Your task to perform on an android device: Toggle the flashlight Image 0: 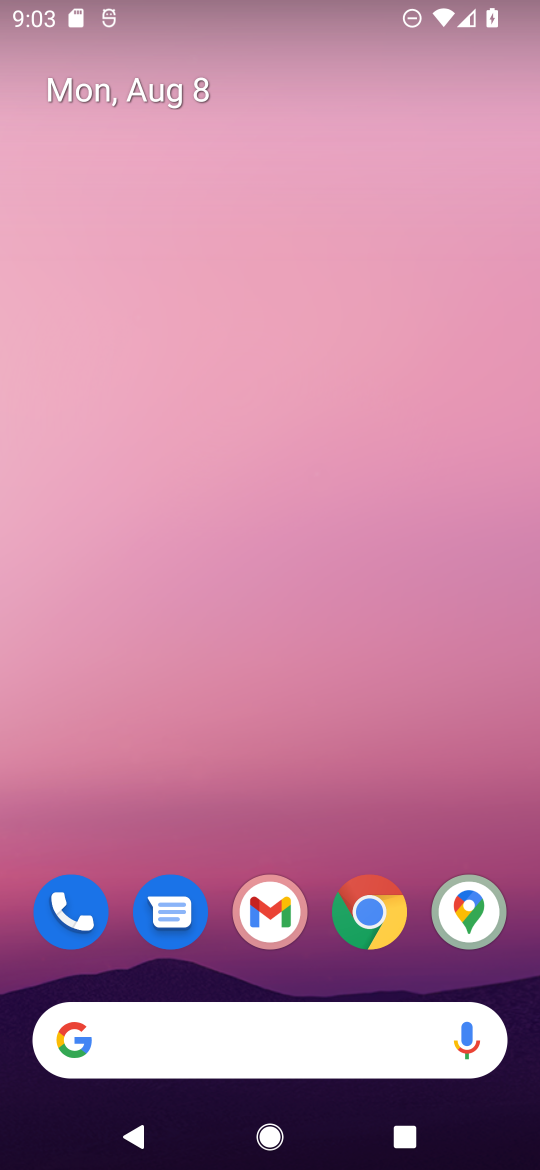
Step 0: drag from (437, 981) to (236, 59)
Your task to perform on an android device: Toggle the flashlight Image 1: 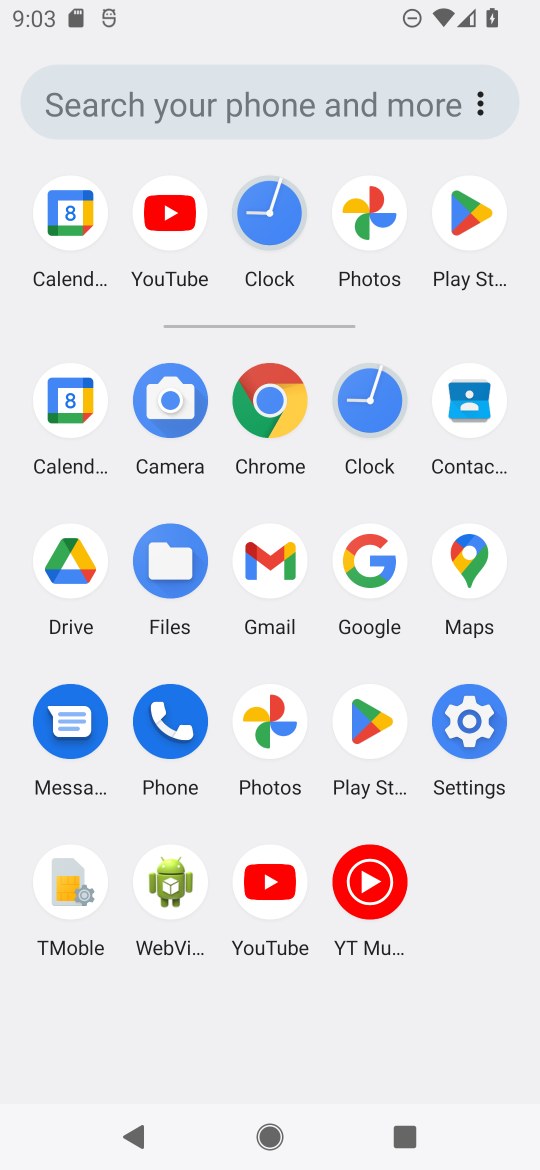
Step 1: drag from (273, 13) to (436, 1165)
Your task to perform on an android device: Toggle the flashlight Image 2: 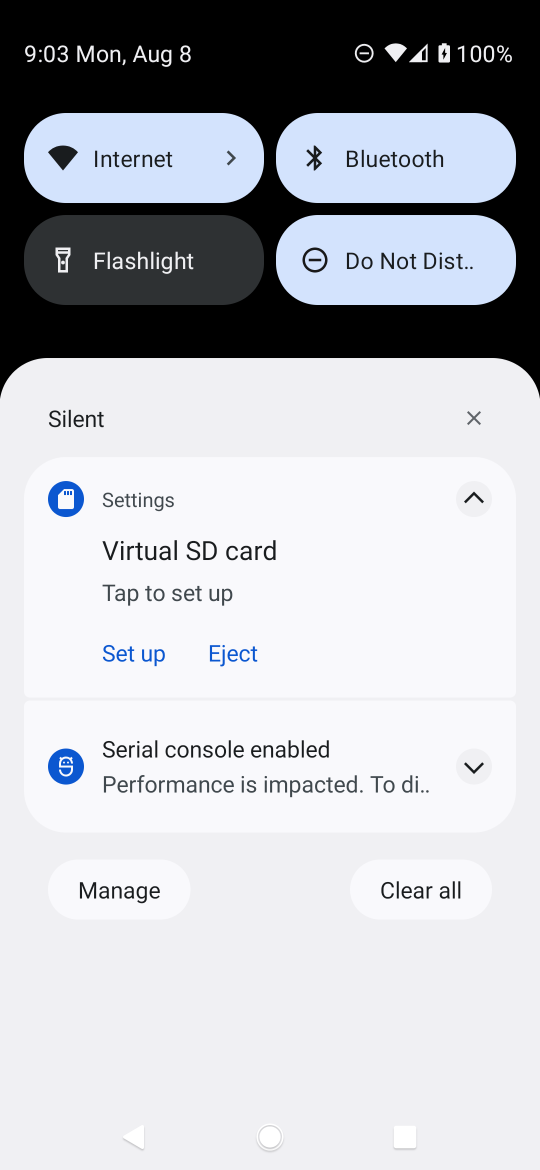
Step 2: click (141, 275)
Your task to perform on an android device: Toggle the flashlight Image 3: 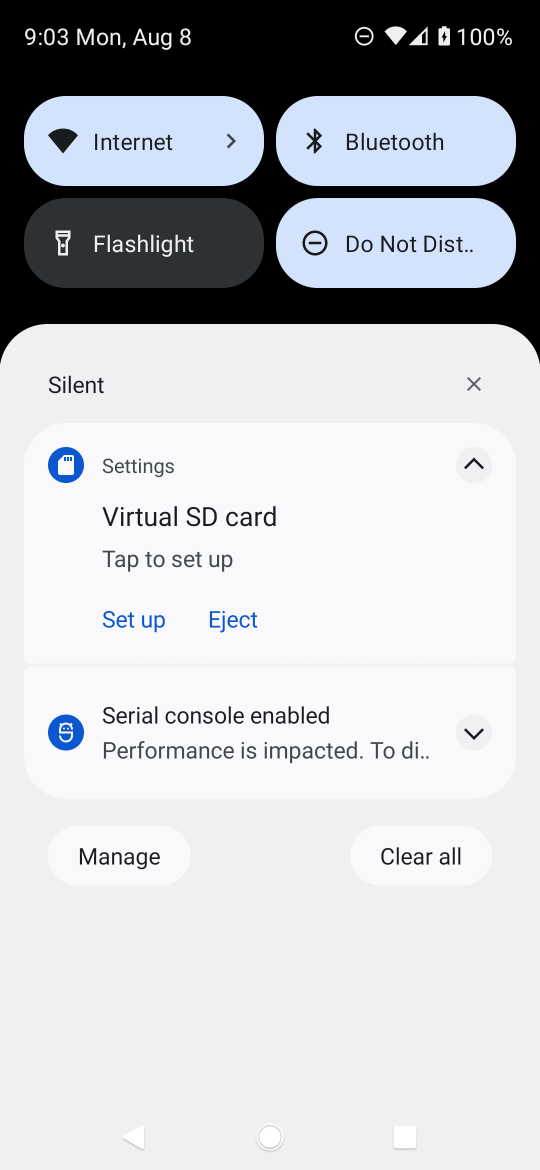
Step 3: click (87, 248)
Your task to perform on an android device: Toggle the flashlight Image 4: 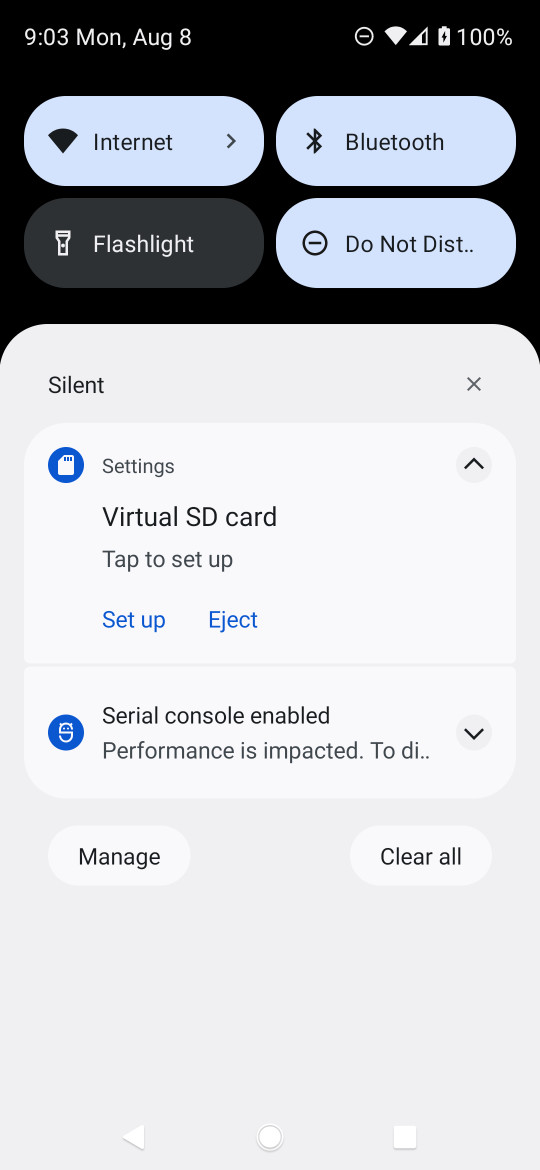
Step 4: task complete